Your task to perform on an android device: Go to Reddit.com Image 0: 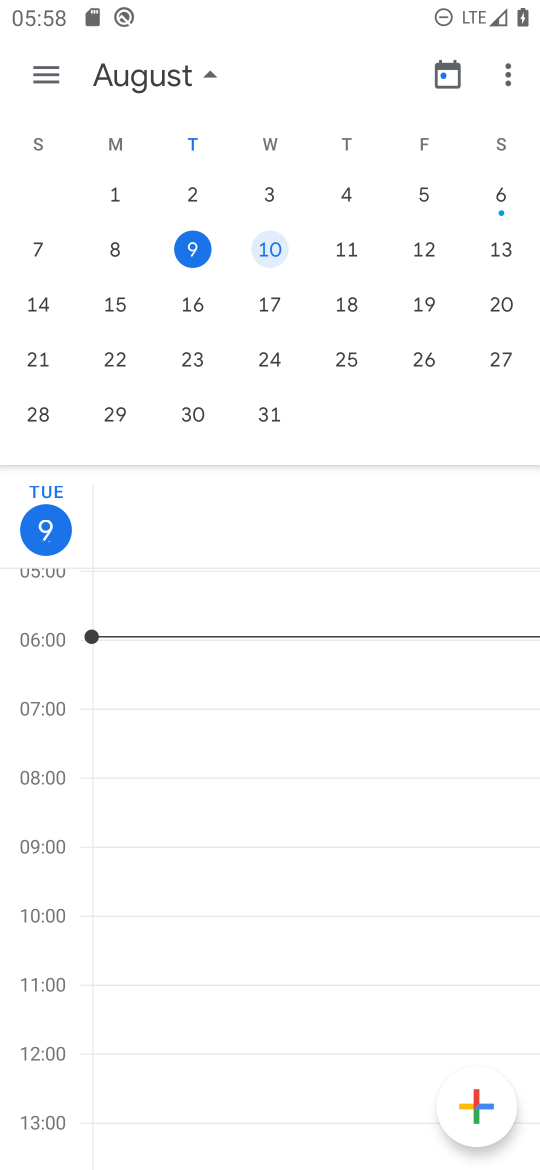
Step 0: press home button
Your task to perform on an android device: Go to Reddit.com Image 1: 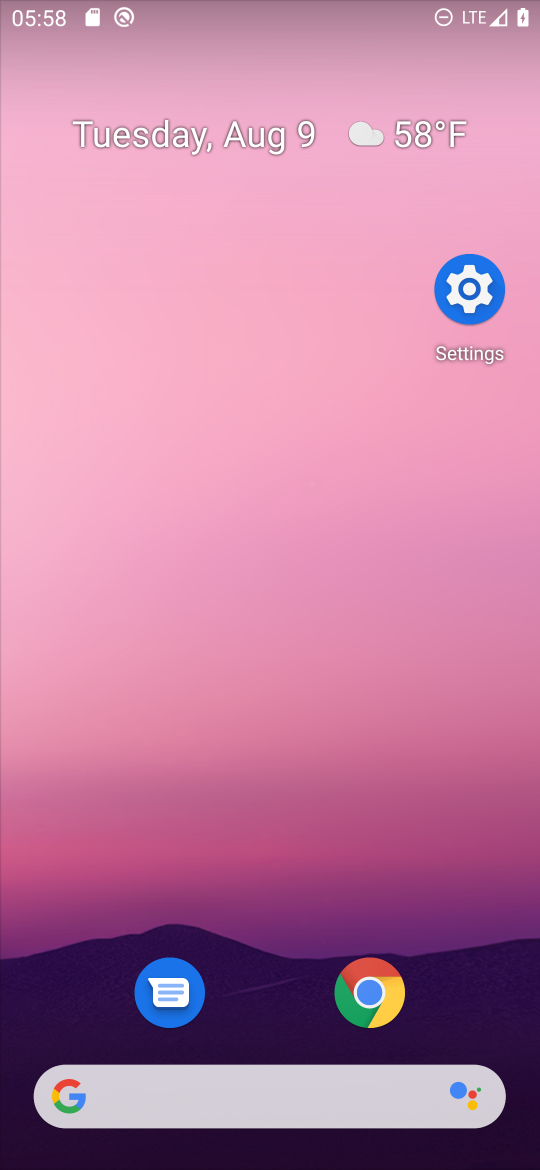
Step 1: drag from (352, 1084) to (148, 22)
Your task to perform on an android device: Go to Reddit.com Image 2: 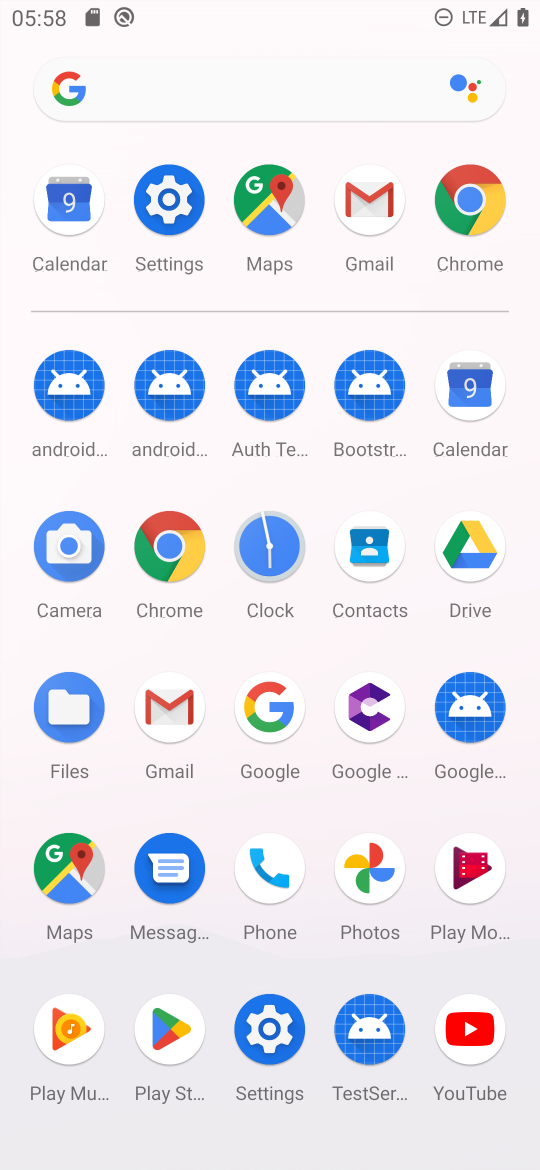
Step 2: click (183, 541)
Your task to perform on an android device: Go to Reddit.com Image 3: 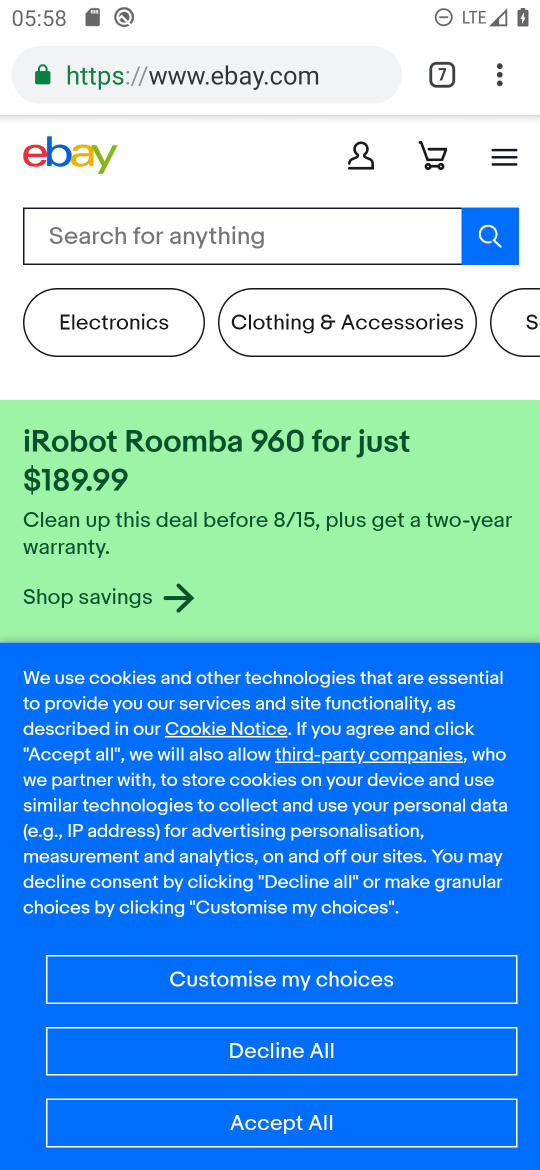
Step 3: click (300, 80)
Your task to perform on an android device: Go to Reddit.com Image 4: 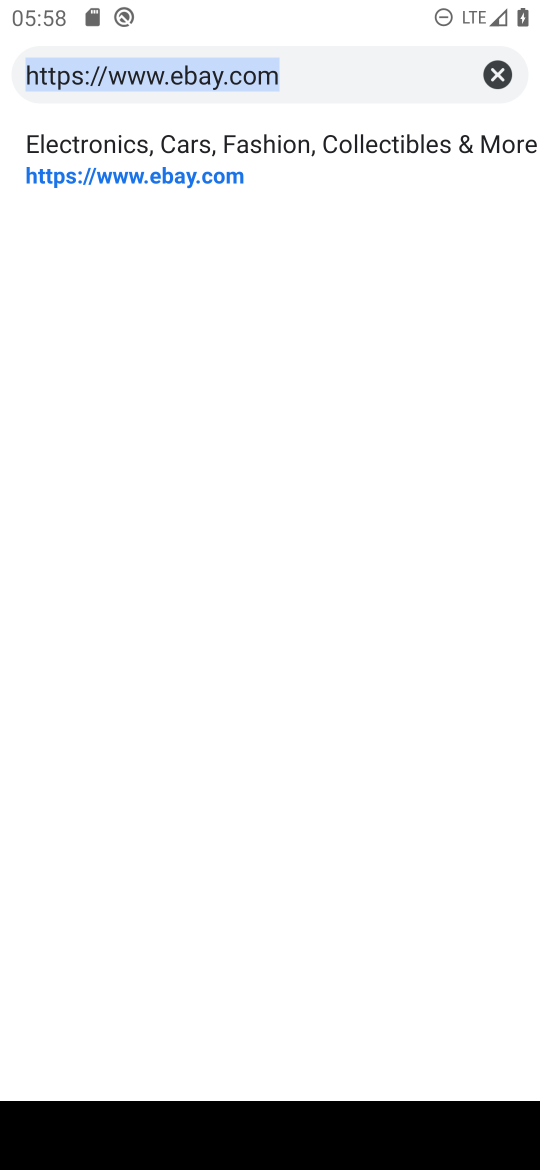
Step 4: type "reddit.com"
Your task to perform on an android device: Go to Reddit.com Image 5: 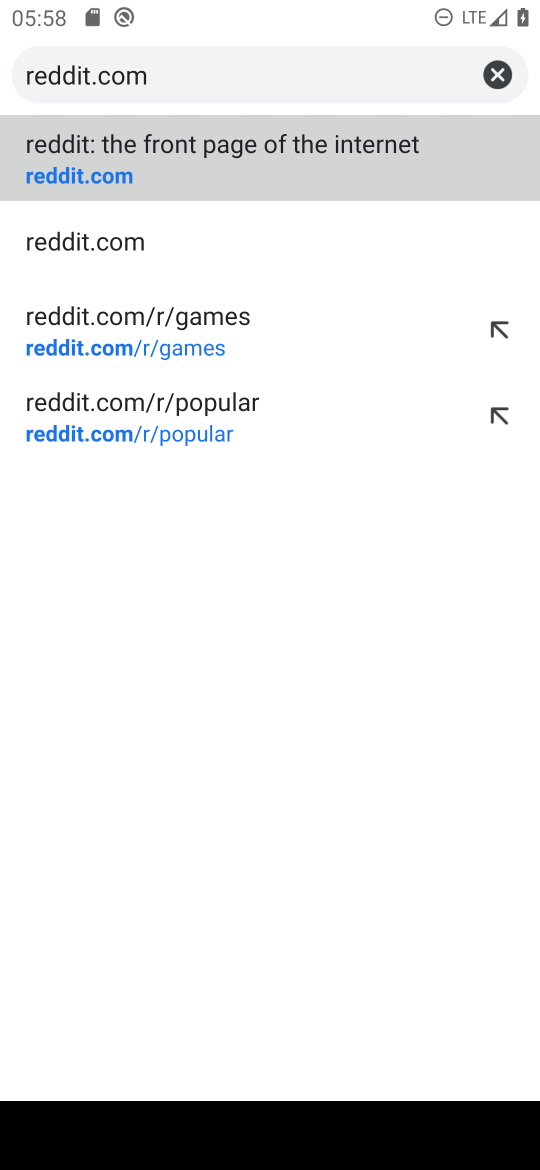
Step 5: click (161, 170)
Your task to perform on an android device: Go to Reddit.com Image 6: 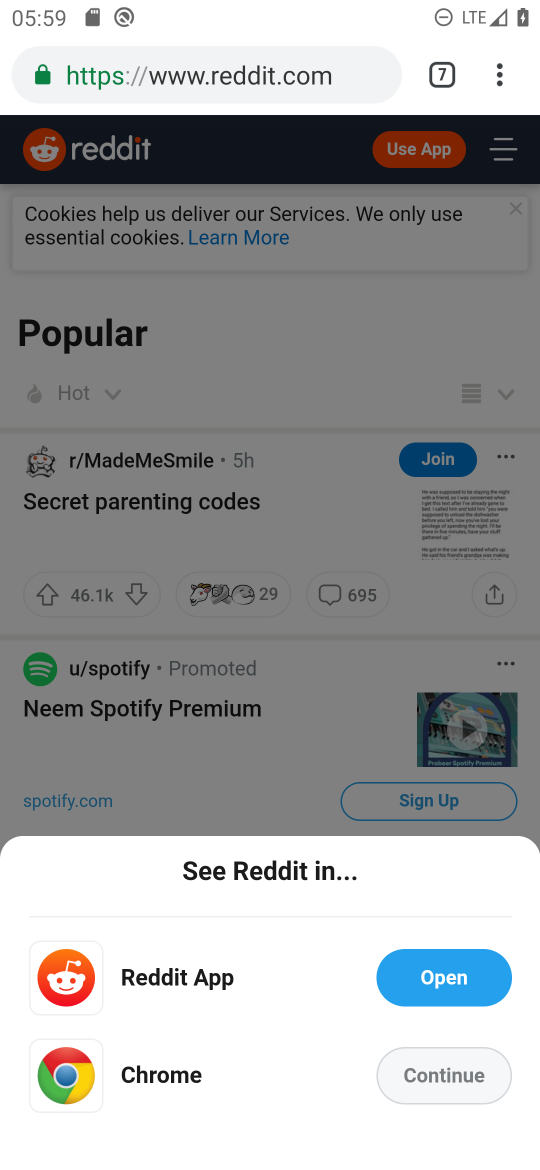
Step 6: click (455, 954)
Your task to perform on an android device: Go to Reddit.com Image 7: 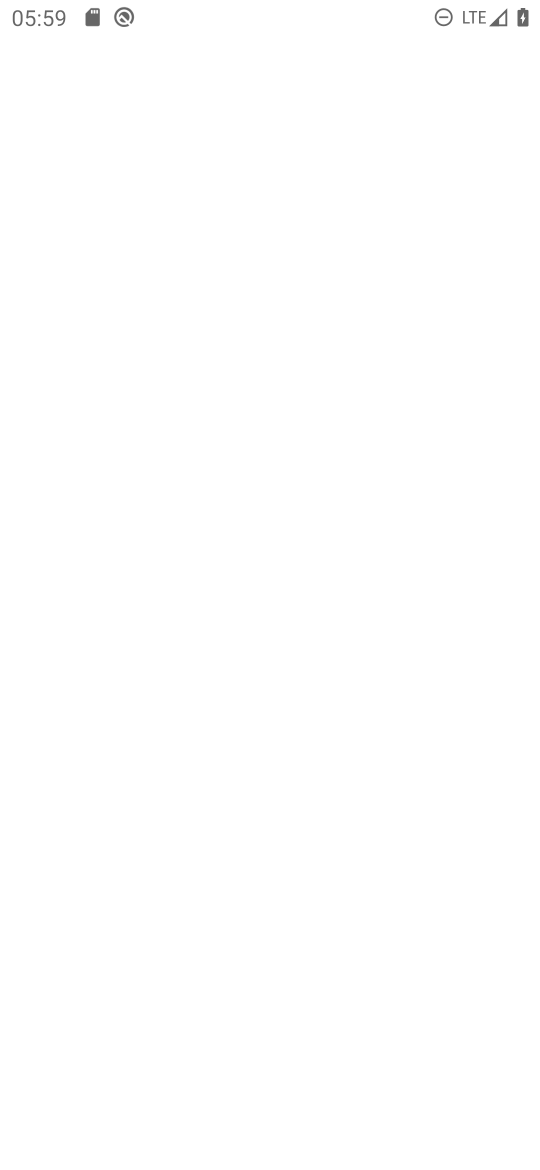
Step 7: task complete